Your task to perform on an android device: turn on the 24-hour format for clock Image 0: 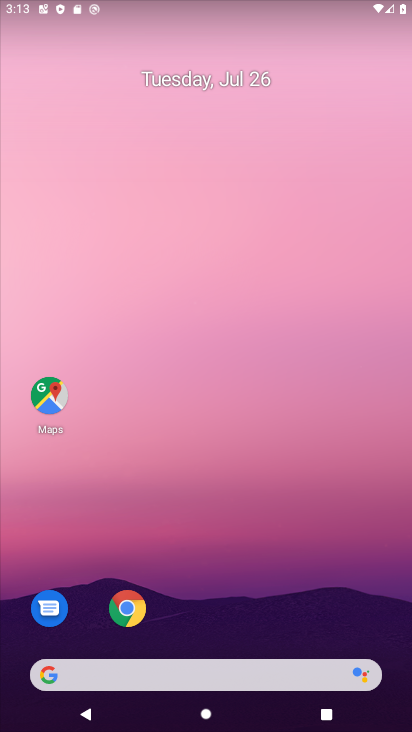
Step 0: drag from (243, 636) to (255, 229)
Your task to perform on an android device: turn on the 24-hour format for clock Image 1: 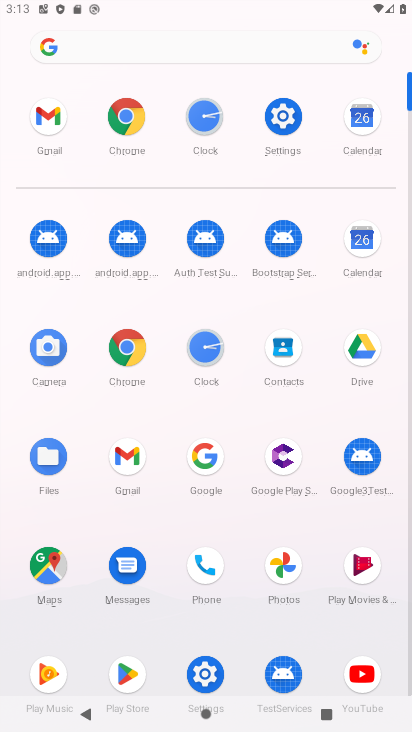
Step 1: click (280, 142)
Your task to perform on an android device: turn on the 24-hour format for clock Image 2: 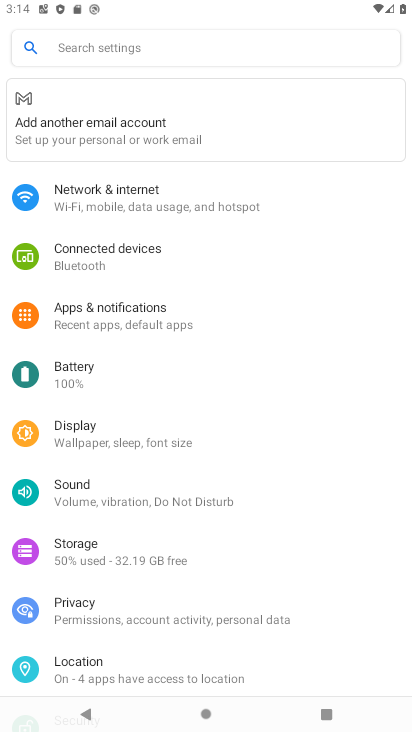
Step 2: press home button
Your task to perform on an android device: turn on the 24-hour format for clock Image 3: 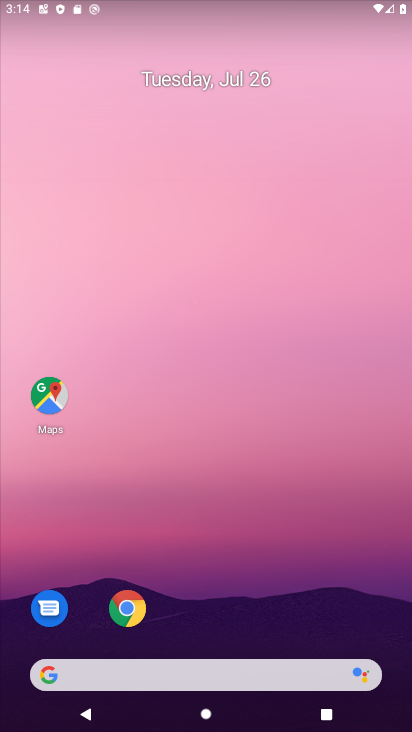
Step 3: drag from (225, 618) to (334, 162)
Your task to perform on an android device: turn on the 24-hour format for clock Image 4: 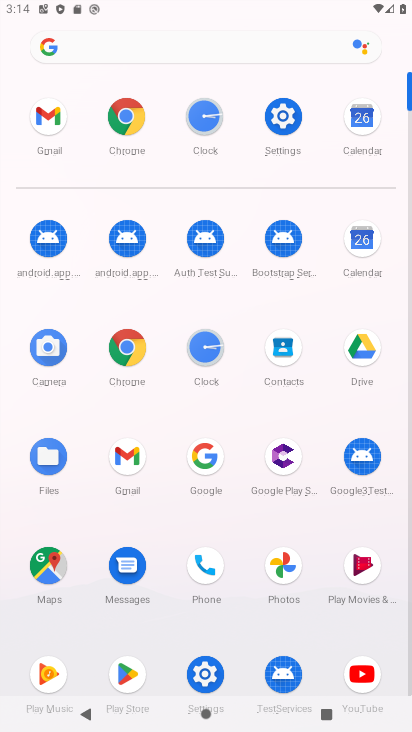
Step 4: click (204, 124)
Your task to perform on an android device: turn on the 24-hour format for clock Image 5: 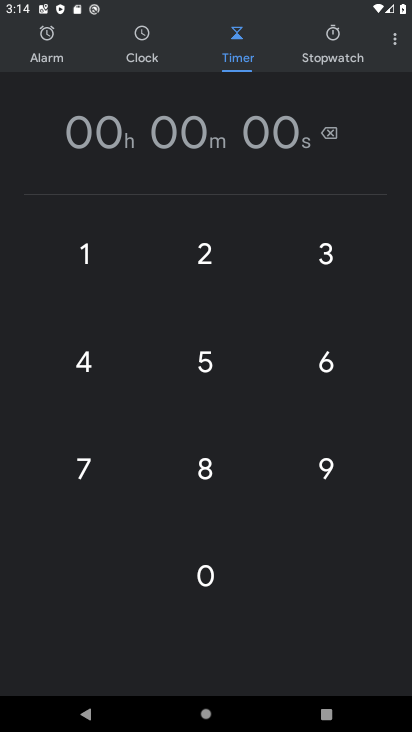
Step 5: click (395, 50)
Your task to perform on an android device: turn on the 24-hour format for clock Image 6: 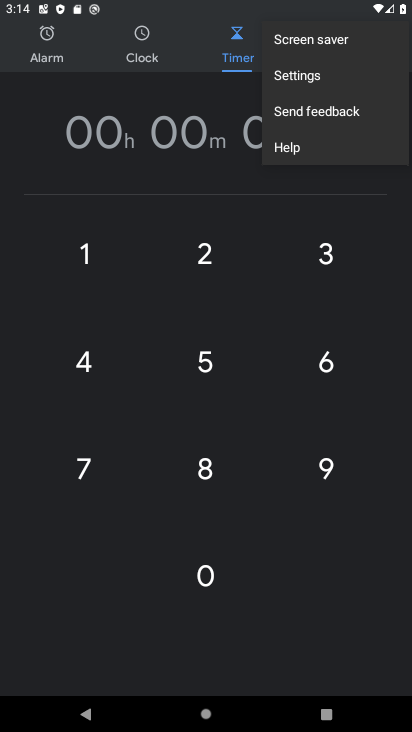
Step 6: click (317, 90)
Your task to perform on an android device: turn on the 24-hour format for clock Image 7: 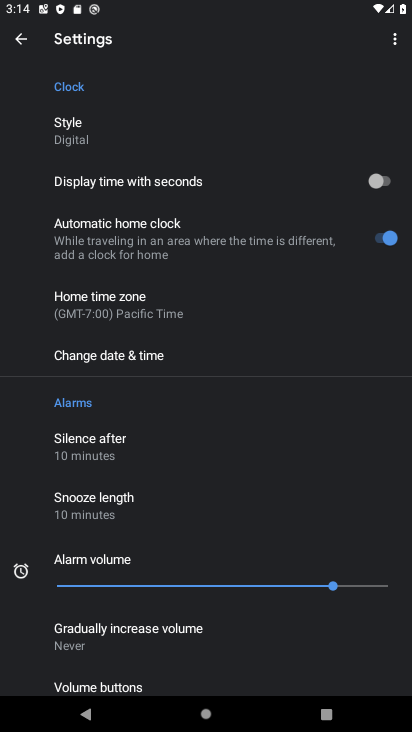
Step 7: click (392, 32)
Your task to perform on an android device: turn on the 24-hour format for clock Image 8: 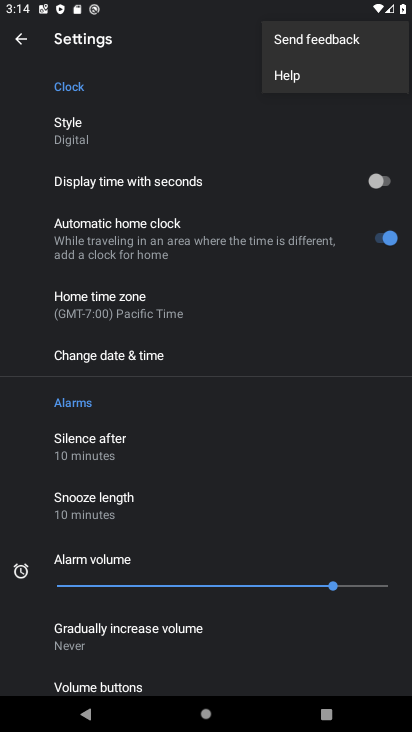
Step 8: click (236, 164)
Your task to perform on an android device: turn on the 24-hour format for clock Image 9: 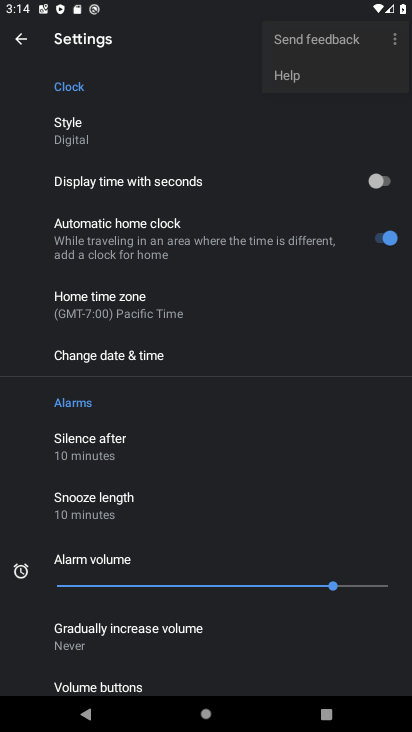
Step 9: drag from (236, 164) to (182, 387)
Your task to perform on an android device: turn on the 24-hour format for clock Image 10: 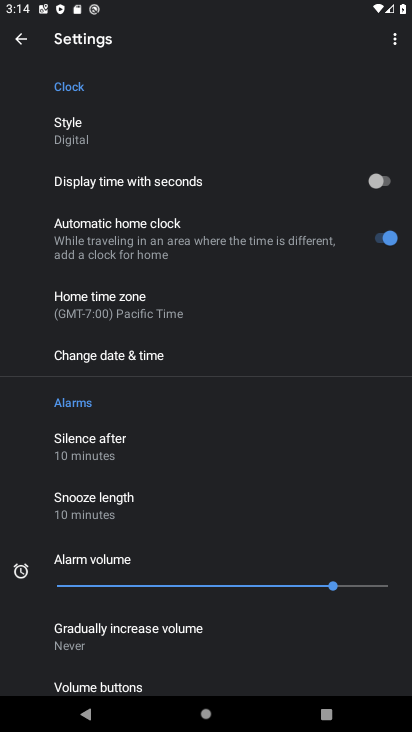
Step 10: click (126, 360)
Your task to perform on an android device: turn on the 24-hour format for clock Image 11: 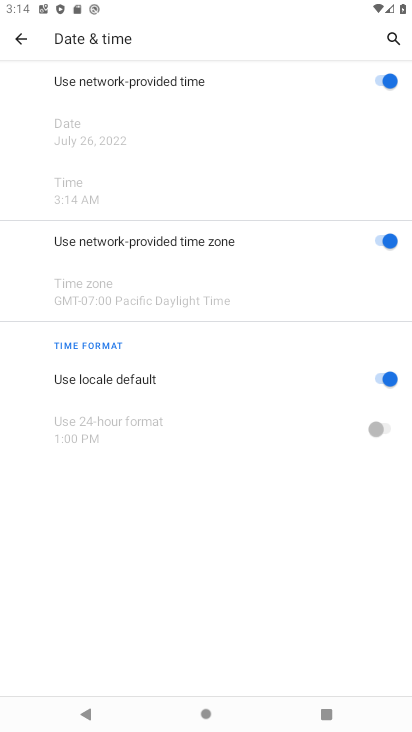
Step 11: click (380, 367)
Your task to perform on an android device: turn on the 24-hour format for clock Image 12: 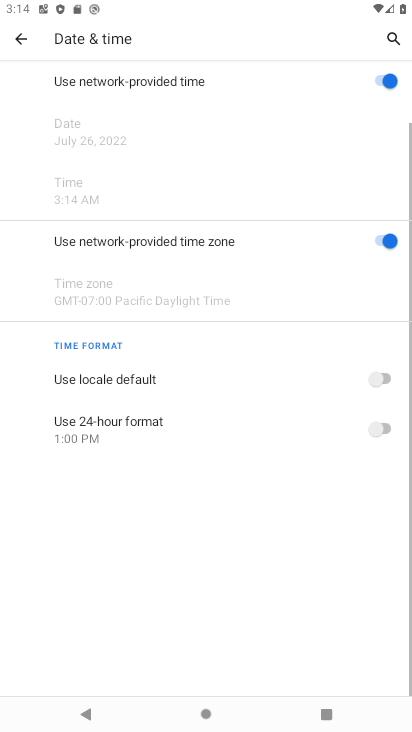
Step 12: click (381, 412)
Your task to perform on an android device: turn on the 24-hour format for clock Image 13: 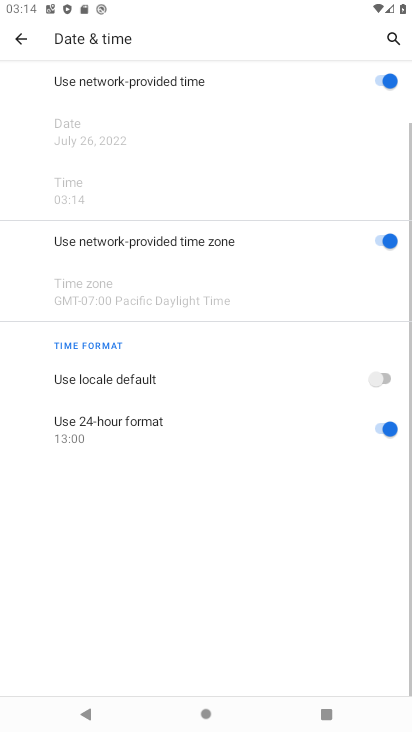
Step 13: task complete